Your task to perform on an android device: Open Chrome and go to settings Image 0: 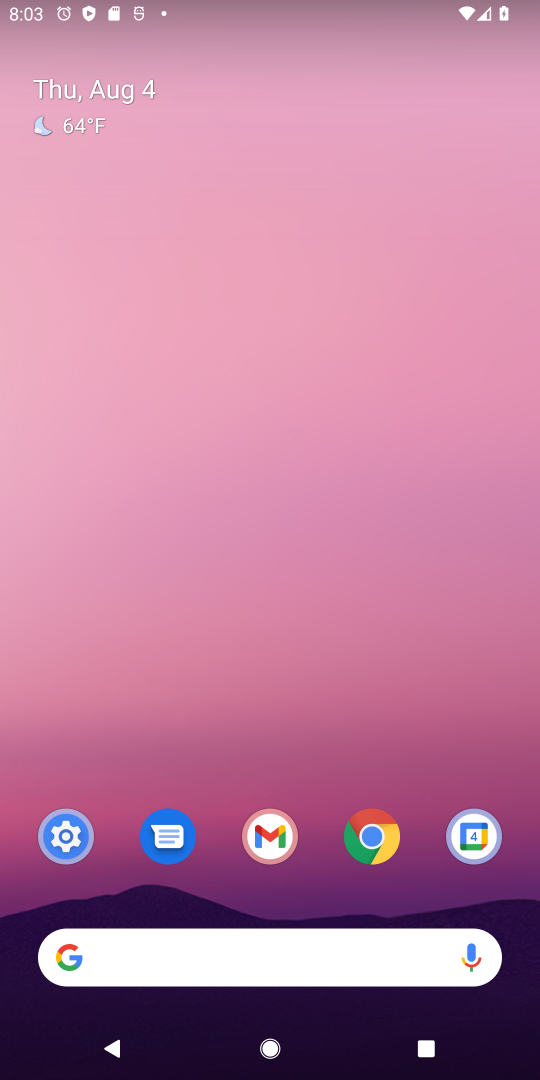
Step 0: click (371, 836)
Your task to perform on an android device: Open Chrome and go to settings Image 1: 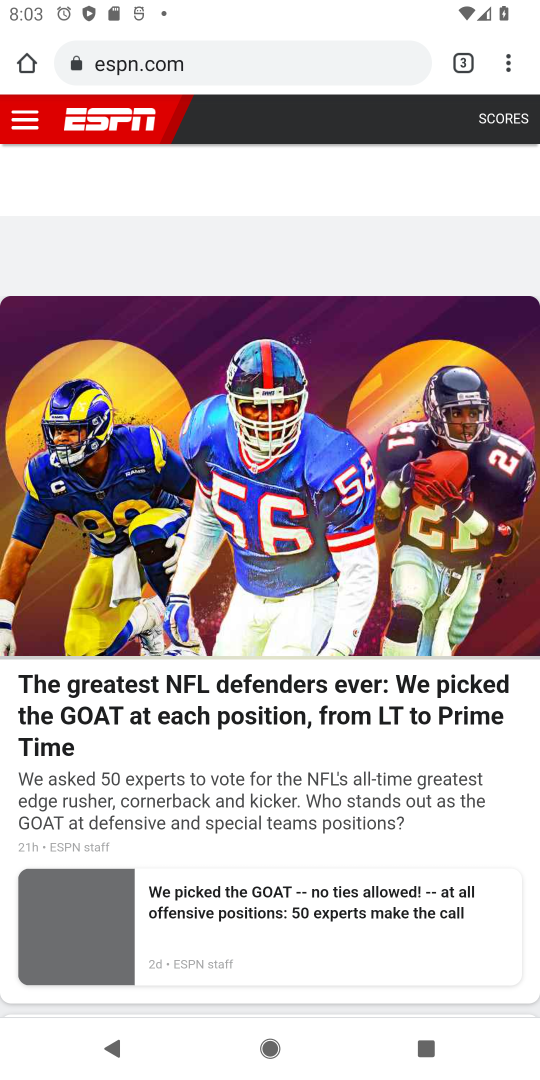
Step 1: task complete